Your task to perform on an android device: Do I have any events tomorrow? Image 0: 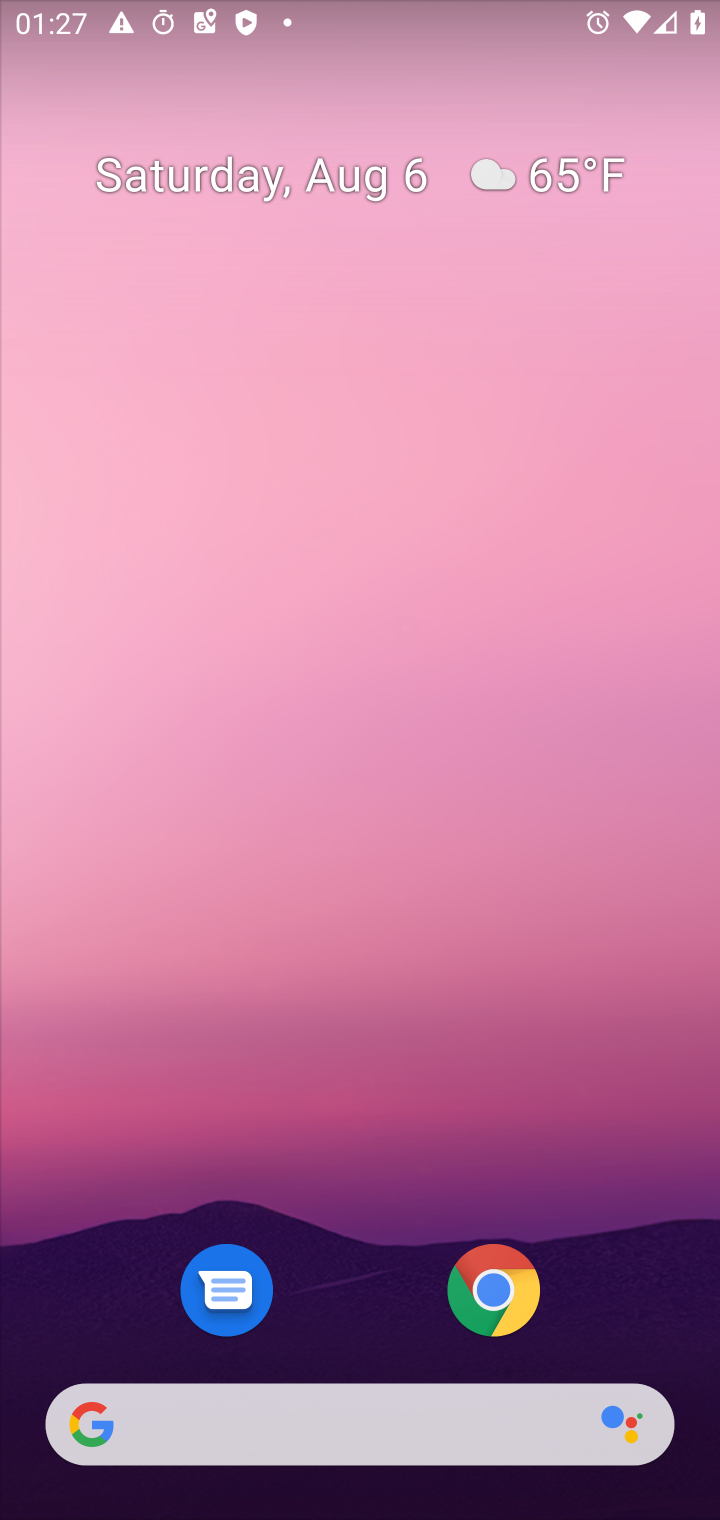
Step 0: drag from (396, 1231) to (576, 316)
Your task to perform on an android device: Do I have any events tomorrow? Image 1: 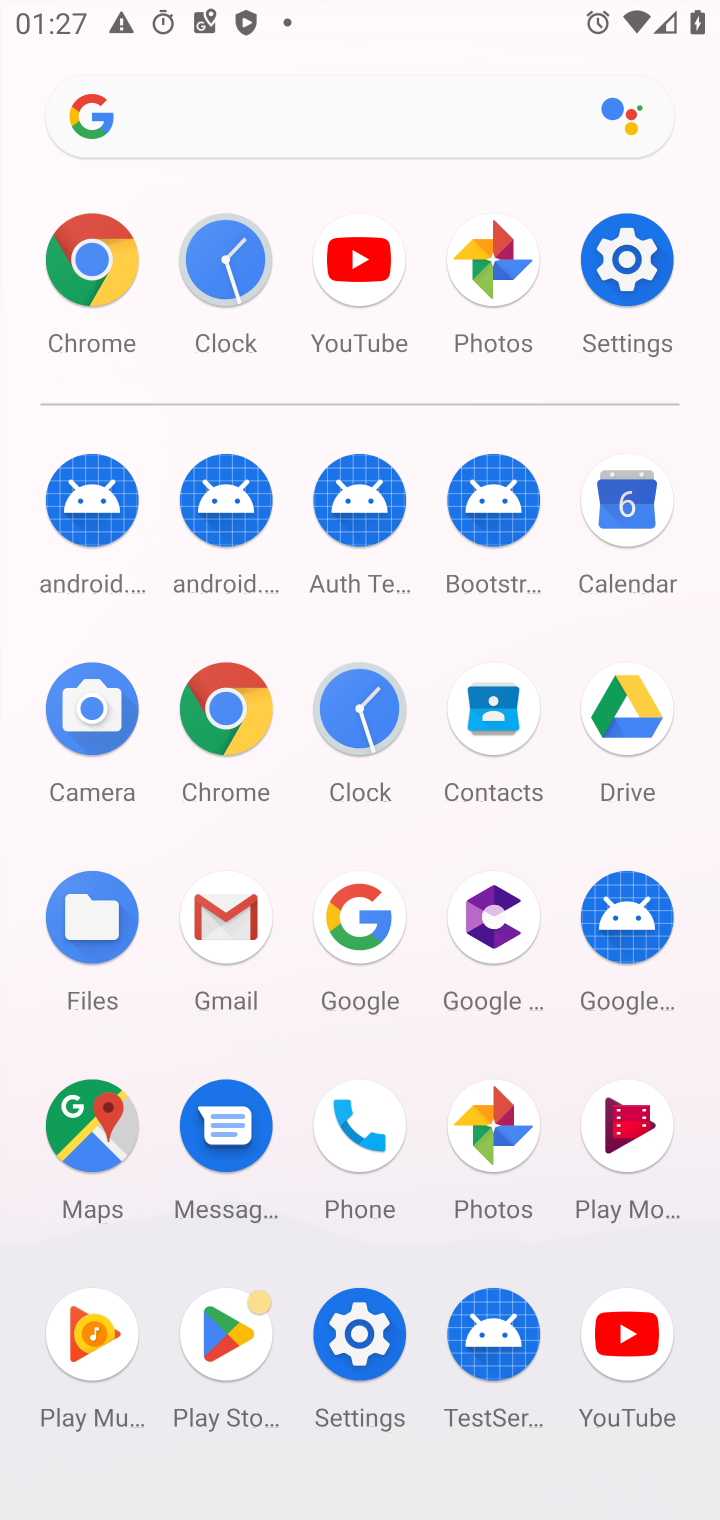
Step 1: click (643, 499)
Your task to perform on an android device: Do I have any events tomorrow? Image 2: 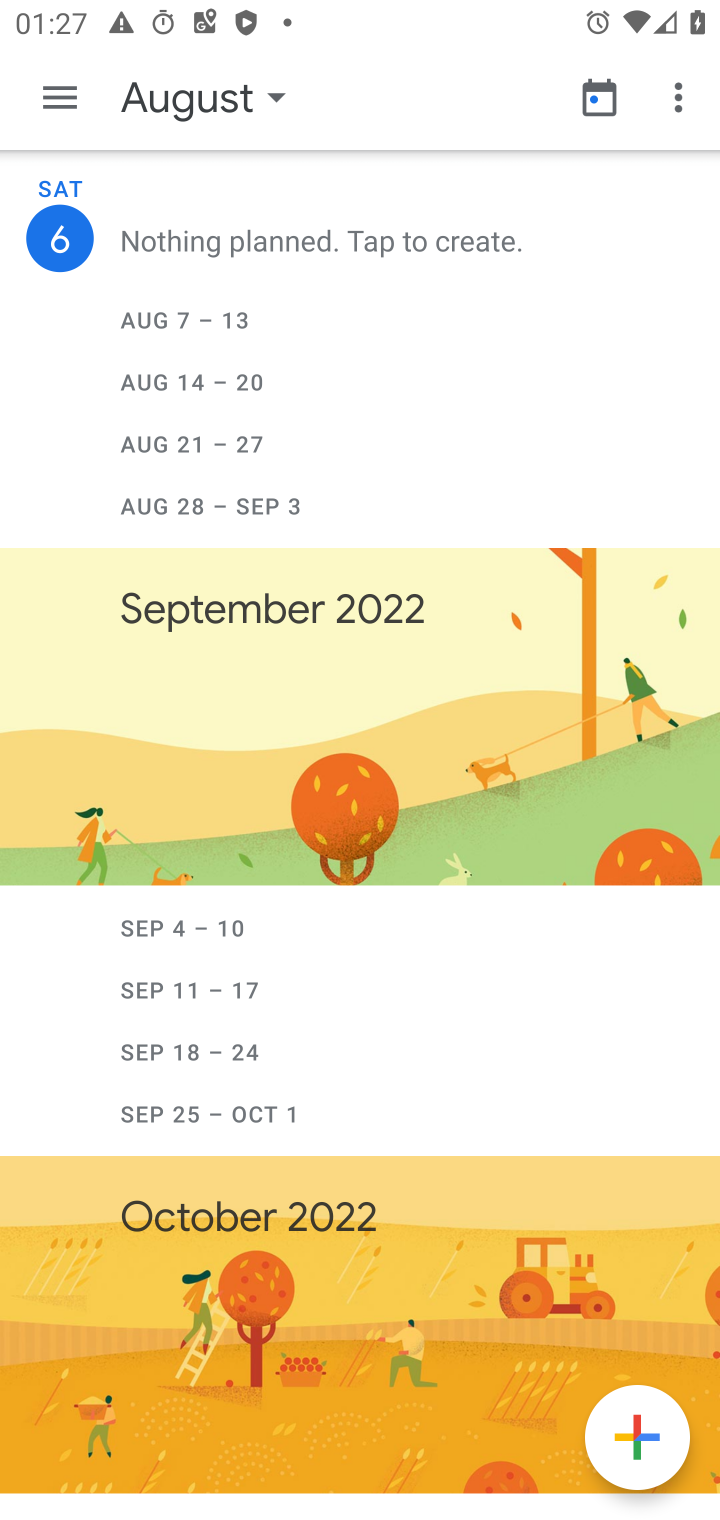
Step 2: click (66, 90)
Your task to perform on an android device: Do I have any events tomorrow? Image 3: 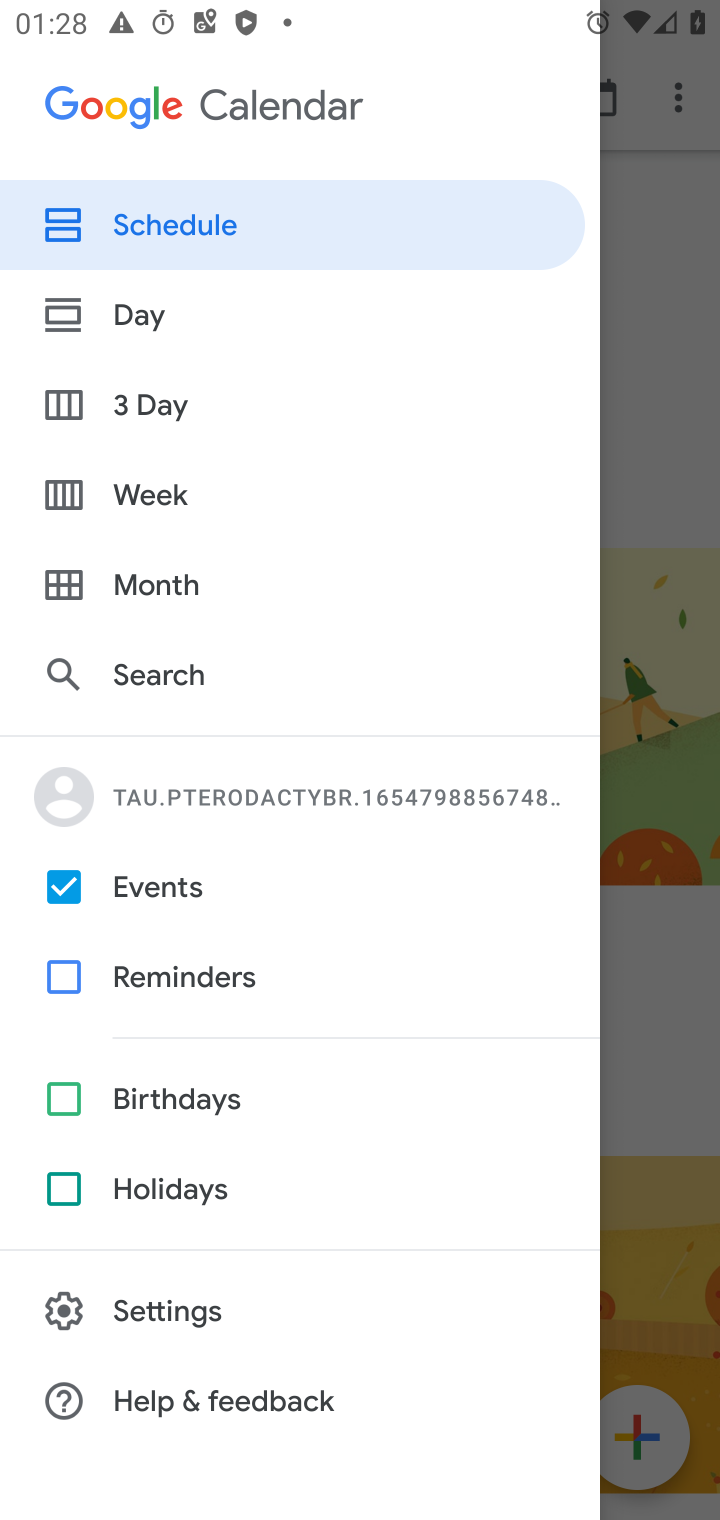
Step 3: click (100, 314)
Your task to perform on an android device: Do I have any events tomorrow? Image 4: 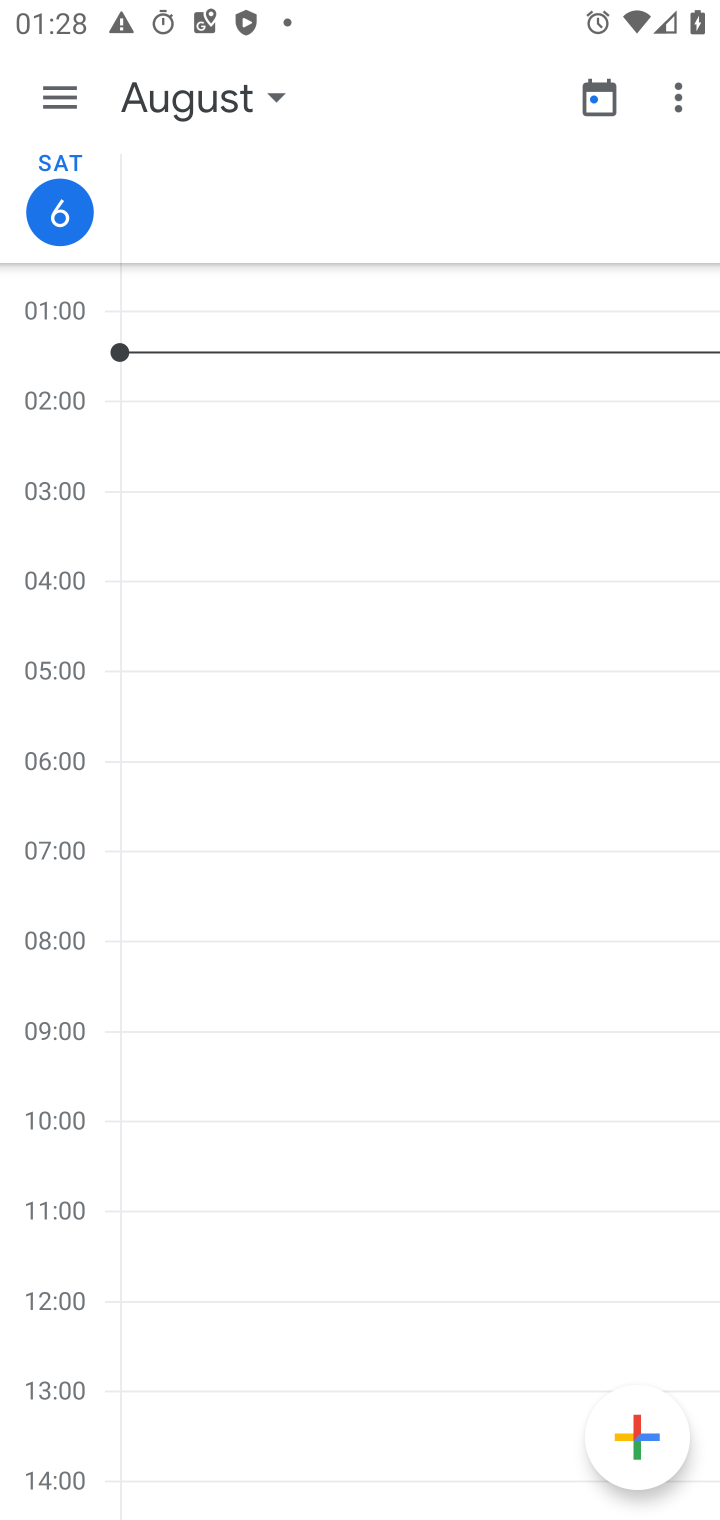
Step 4: click (276, 87)
Your task to perform on an android device: Do I have any events tomorrow? Image 5: 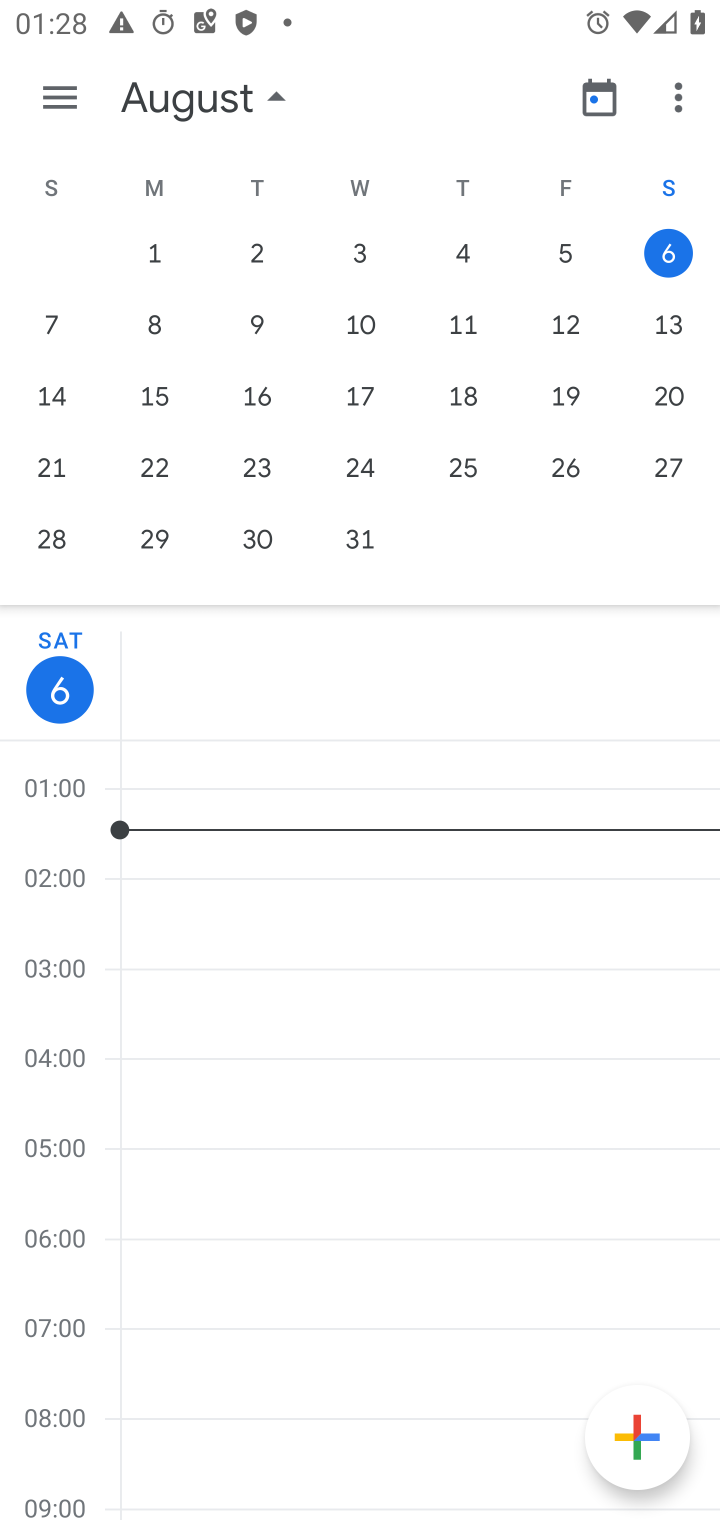
Step 5: click (47, 322)
Your task to perform on an android device: Do I have any events tomorrow? Image 6: 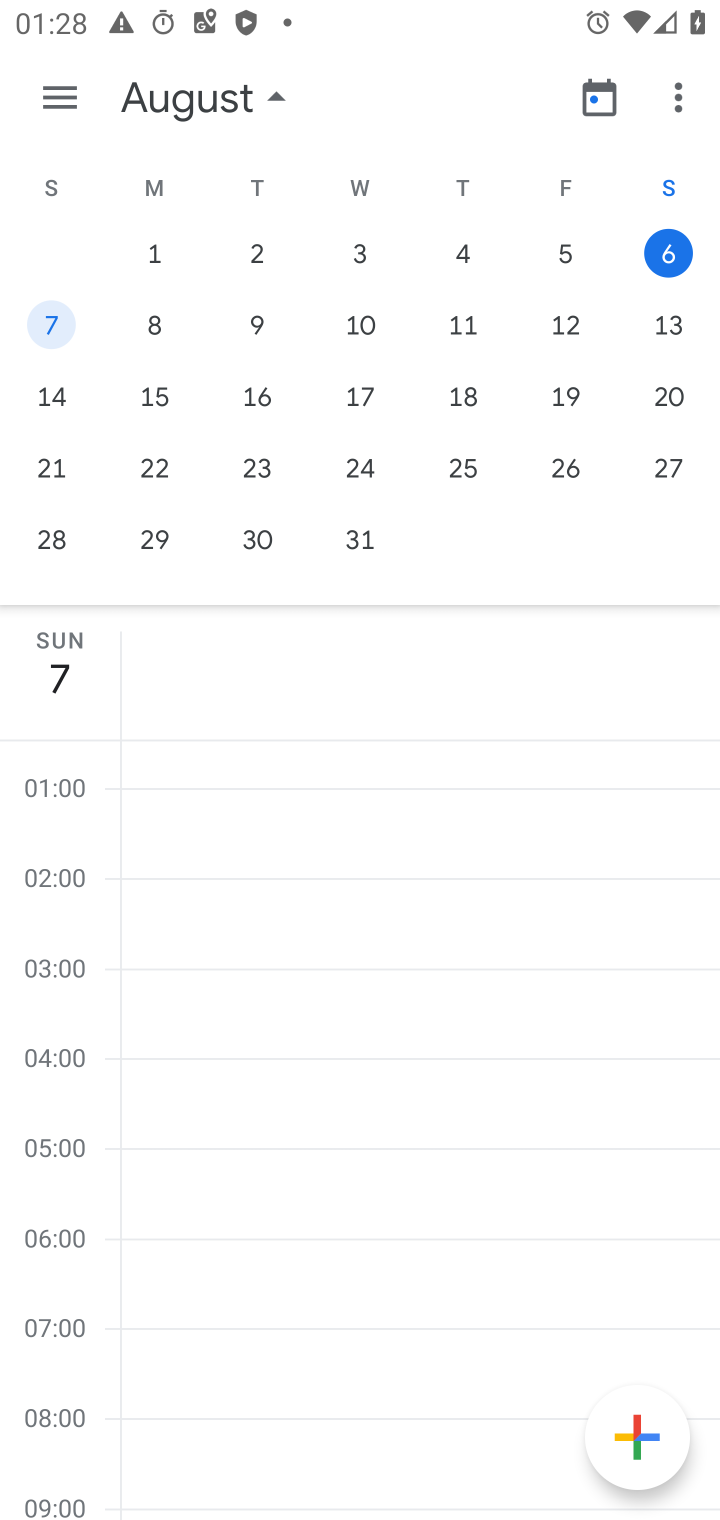
Step 6: click (264, 79)
Your task to perform on an android device: Do I have any events tomorrow? Image 7: 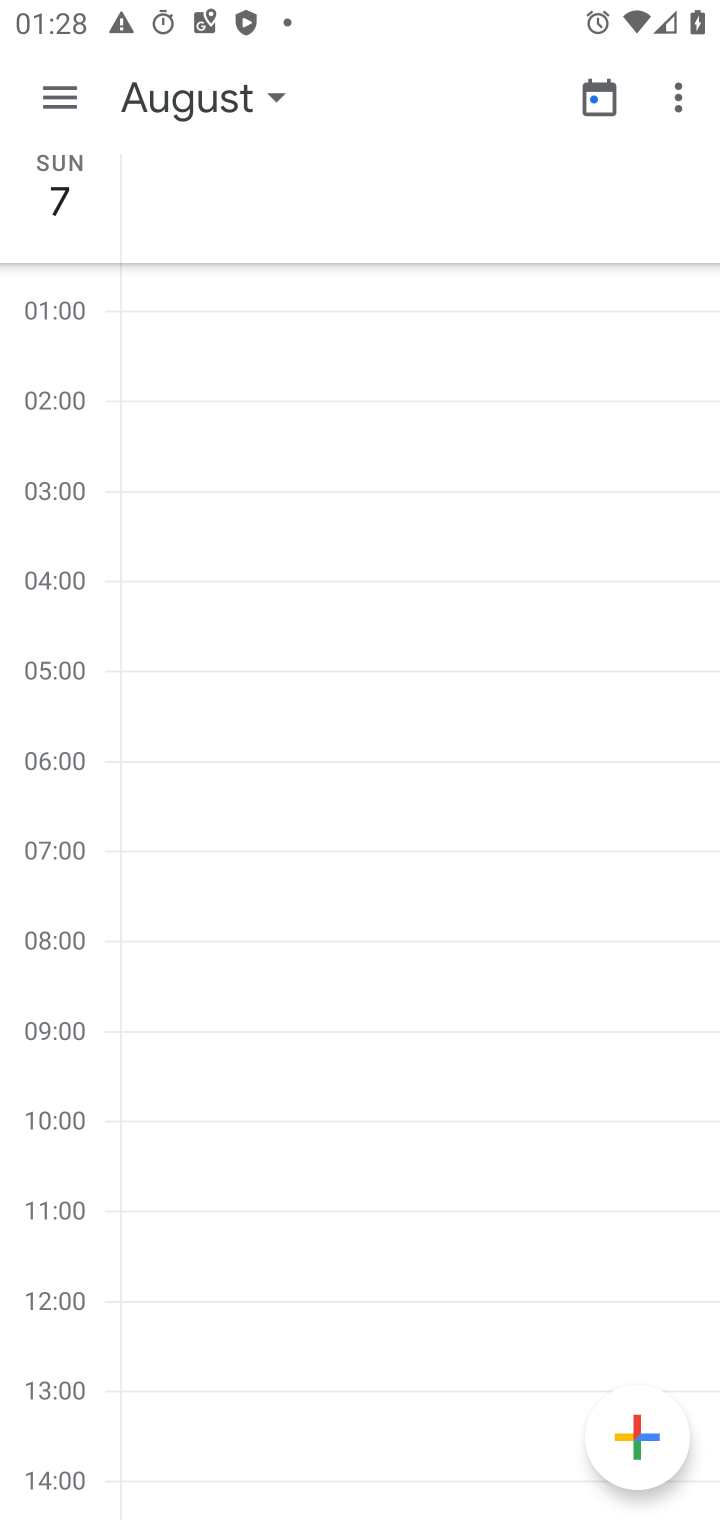
Step 7: task complete